Your task to perform on an android device: What's the news in the Bahamas? Image 0: 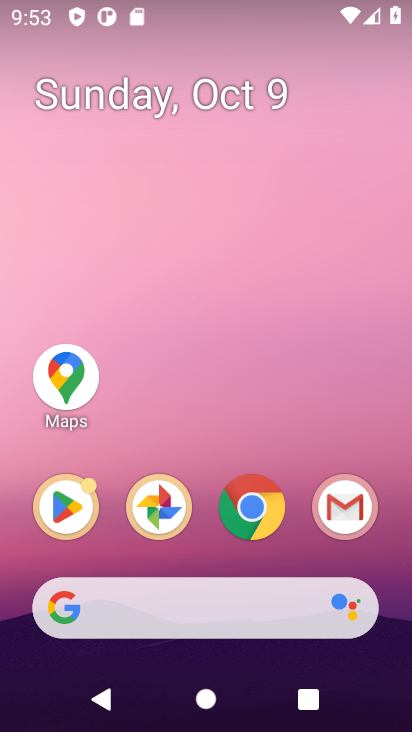
Step 0: drag from (294, 556) to (294, 128)
Your task to perform on an android device: What's the news in the Bahamas? Image 1: 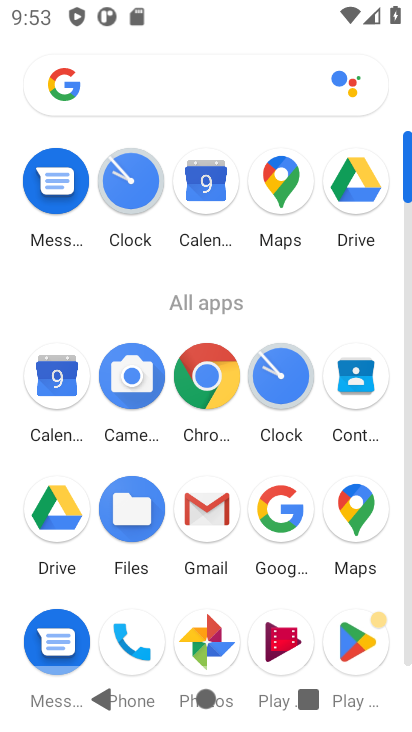
Step 1: click (208, 380)
Your task to perform on an android device: What's the news in the Bahamas? Image 2: 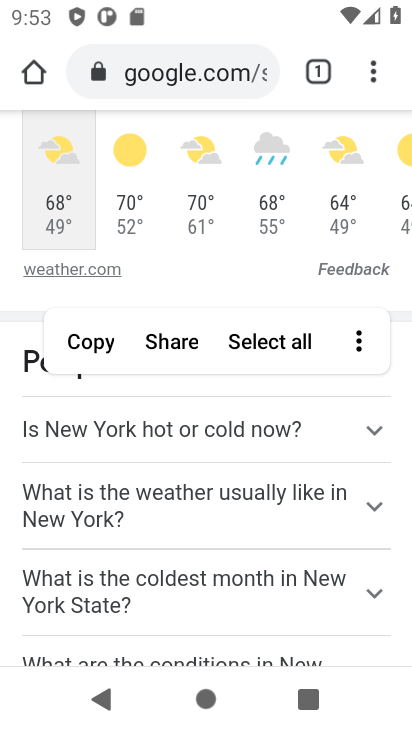
Step 2: click (208, 86)
Your task to perform on an android device: What's the news in the Bahamas? Image 3: 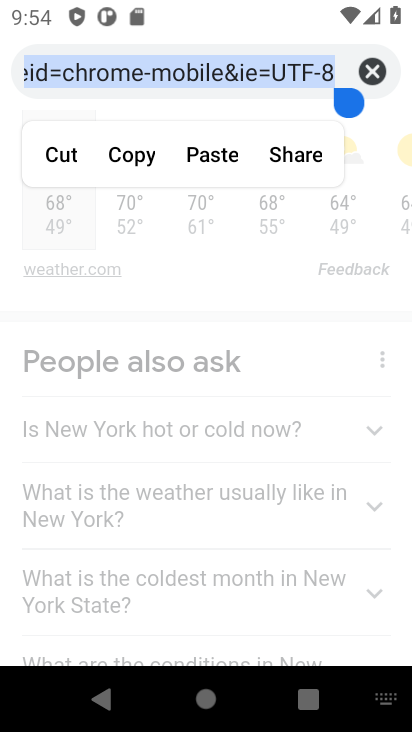
Step 3: type "What's the news in the Bahamas?"
Your task to perform on an android device: What's the news in the Bahamas? Image 4: 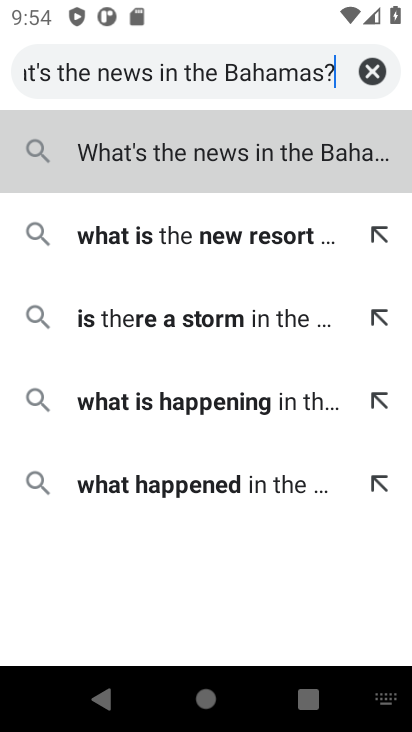
Step 4: press enter
Your task to perform on an android device: What's the news in the Bahamas? Image 5: 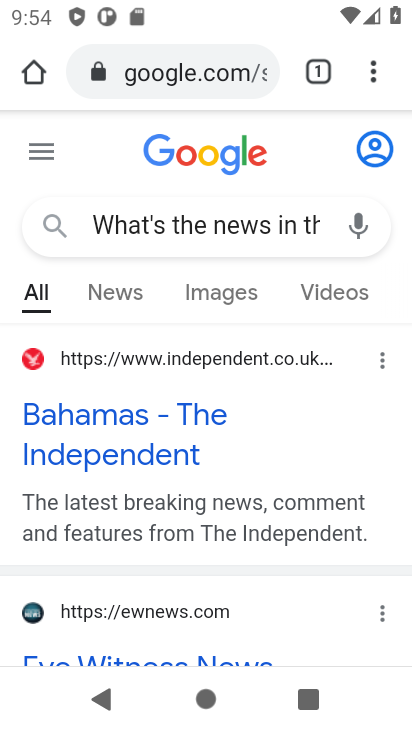
Step 5: drag from (200, 559) to (174, 365)
Your task to perform on an android device: What's the news in the Bahamas? Image 6: 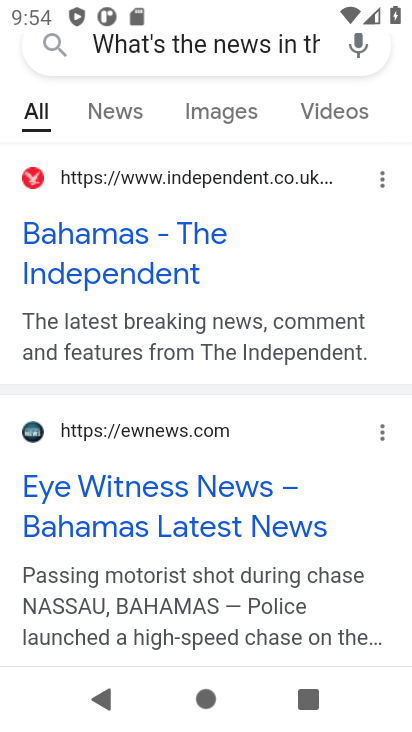
Step 6: click (135, 255)
Your task to perform on an android device: What's the news in the Bahamas? Image 7: 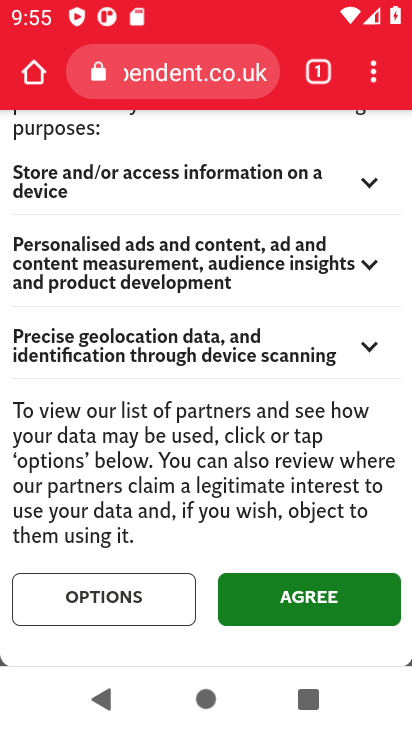
Step 7: task complete